Your task to perform on an android device: Go to Amazon Image 0: 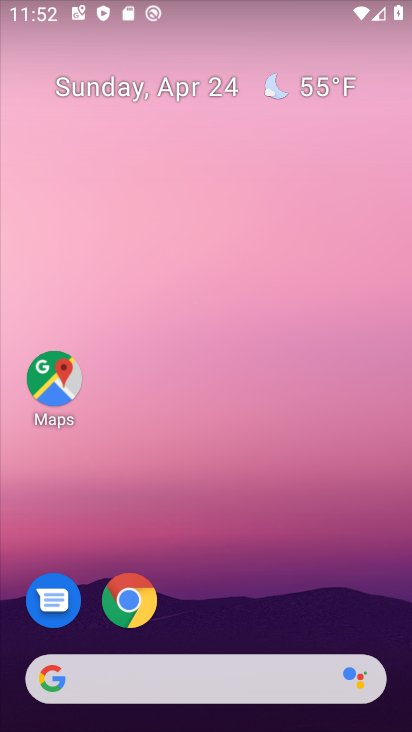
Step 0: click (136, 608)
Your task to perform on an android device: Go to Amazon Image 1: 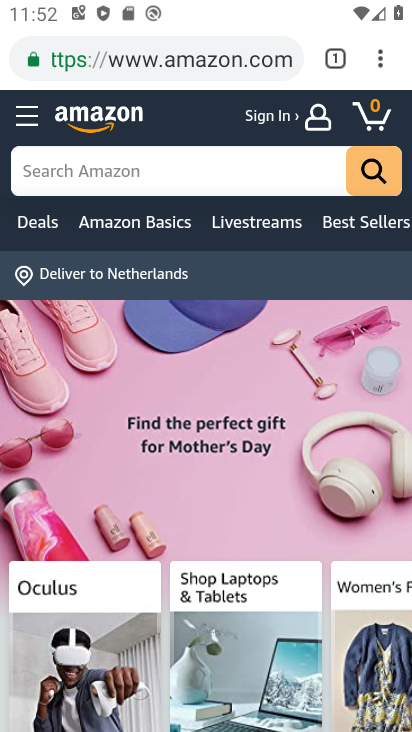
Step 1: task complete